Your task to perform on an android device: turn on location history Image 0: 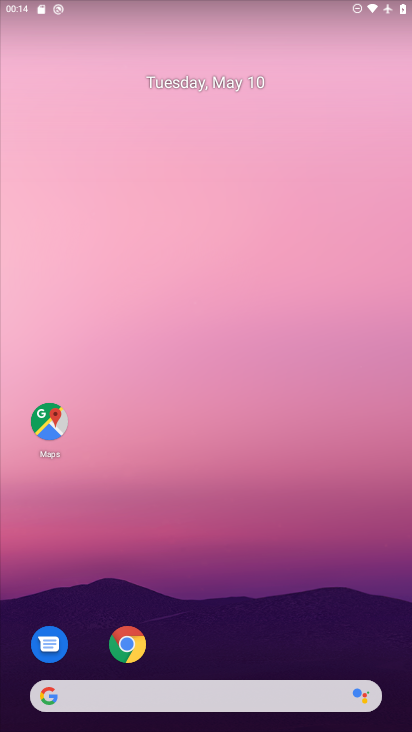
Step 0: drag from (210, 649) to (159, 137)
Your task to perform on an android device: turn on location history Image 1: 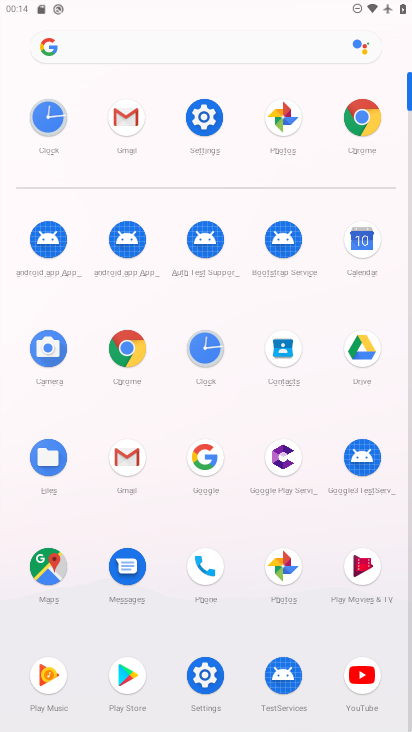
Step 1: click (194, 111)
Your task to perform on an android device: turn on location history Image 2: 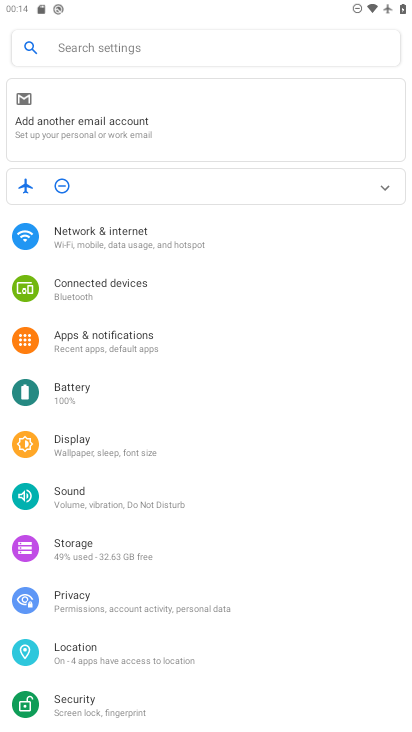
Step 2: click (129, 640)
Your task to perform on an android device: turn on location history Image 3: 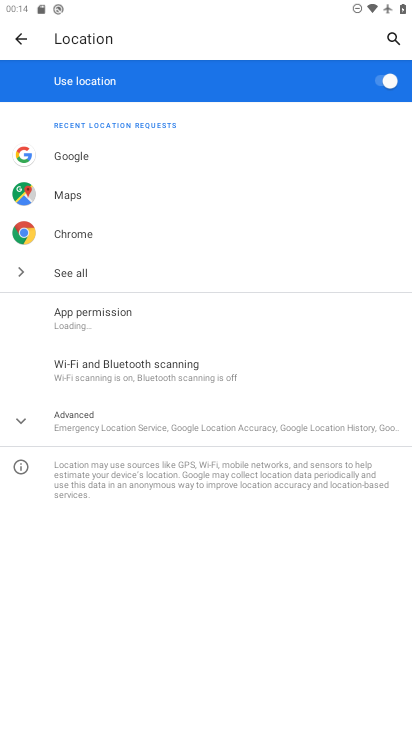
Step 3: click (155, 427)
Your task to perform on an android device: turn on location history Image 4: 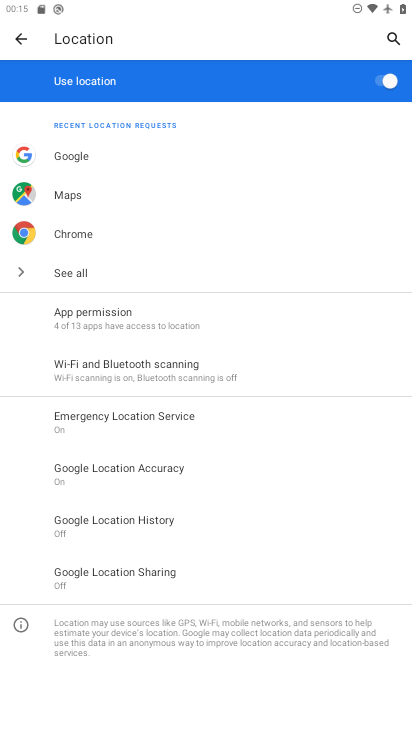
Step 4: click (161, 529)
Your task to perform on an android device: turn on location history Image 5: 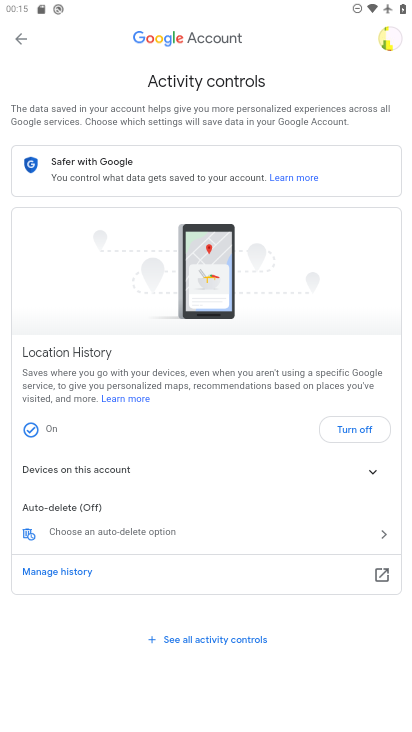
Step 5: task complete